Your task to perform on an android device: Open notification settings Image 0: 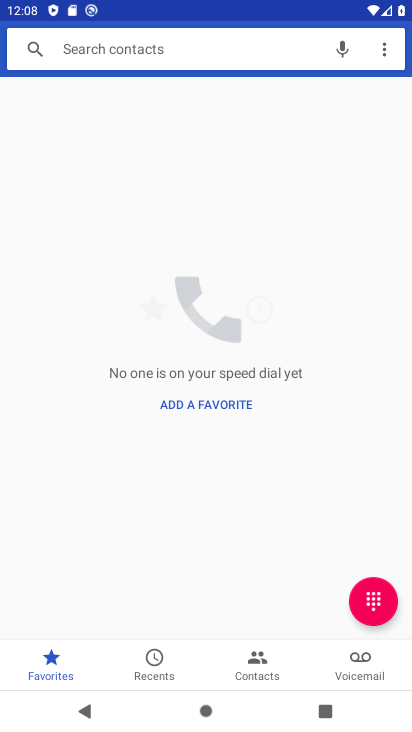
Step 0: press home button
Your task to perform on an android device: Open notification settings Image 1: 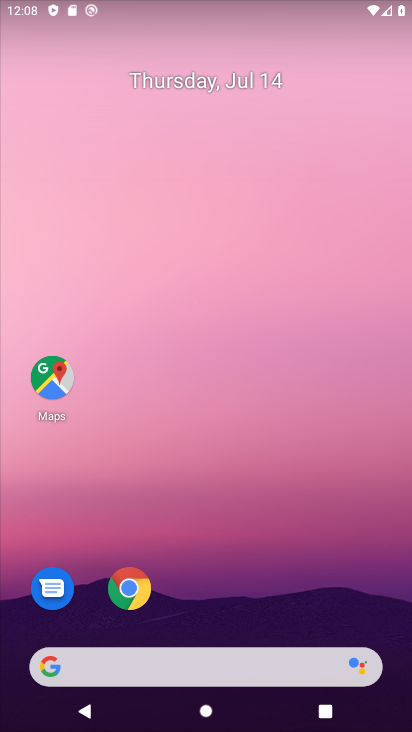
Step 1: drag from (275, 604) to (208, 67)
Your task to perform on an android device: Open notification settings Image 2: 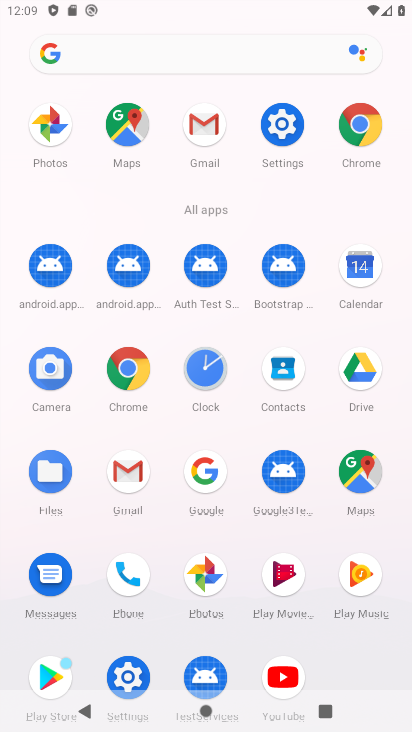
Step 2: click (291, 158)
Your task to perform on an android device: Open notification settings Image 3: 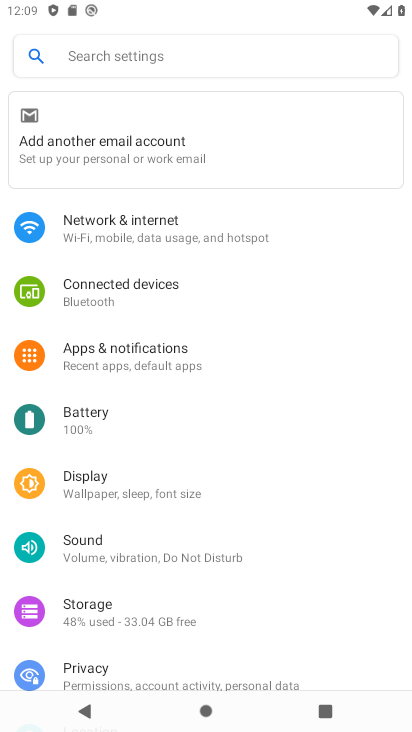
Step 3: click (212, 354)
Your task to perform on an android device: Open notification settings Image 4: 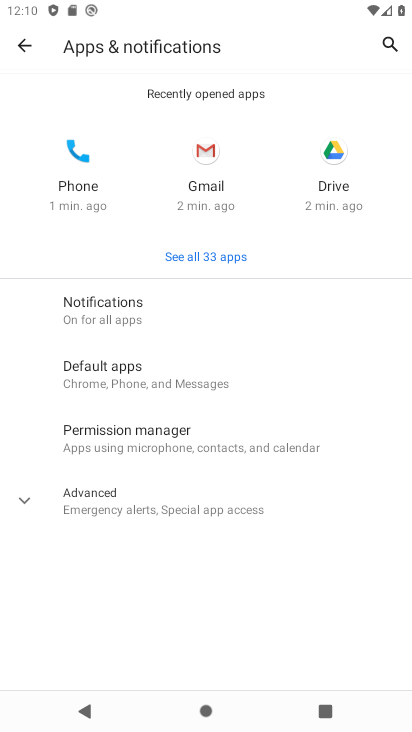
Step 4: click (195, 324)
Your task to perform on an android device: Open notification settings Image 5: 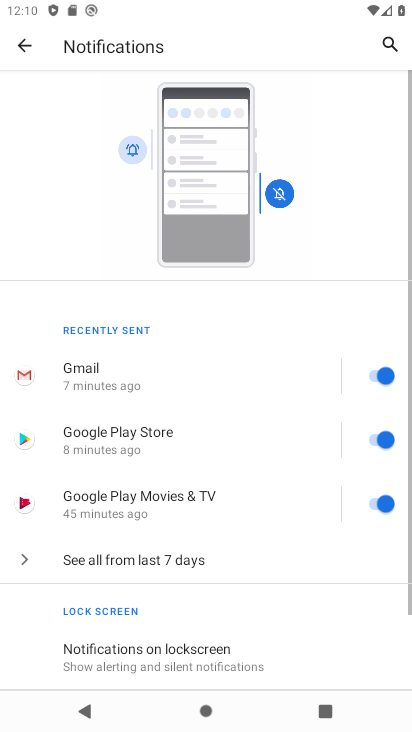
Step 5: task complete